Your task to perform on an android device: uninstall "Move to iOS" Image 0: 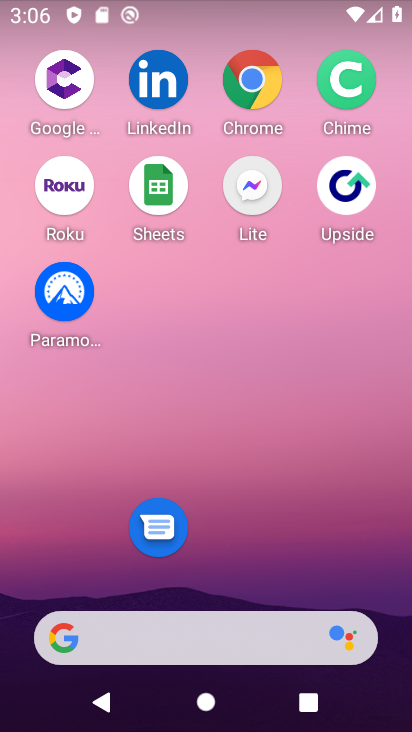
Step 0: drag from (268, 572) to (257, 10)
Your task to perform on an android device: uninstall "Move to iOS" Image 1: 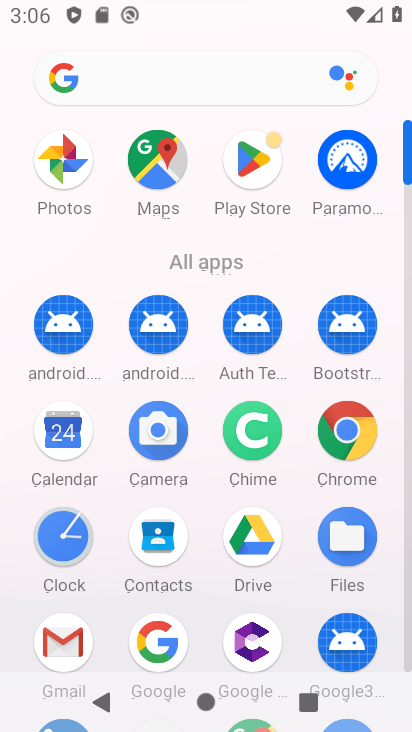
Step 1: click (268, 156)
Your task to perform on an android device: uninstall "Move to iOS" Image 2: 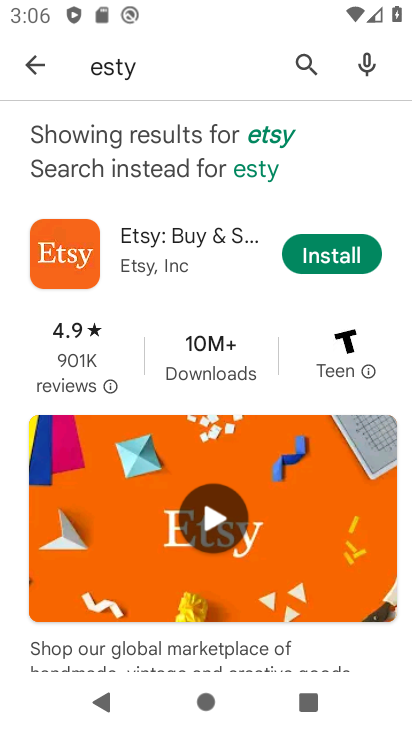
Step 2: click (316, 83)
Your task to perform on an android device: uninstall "Move to iOS" Image 3: 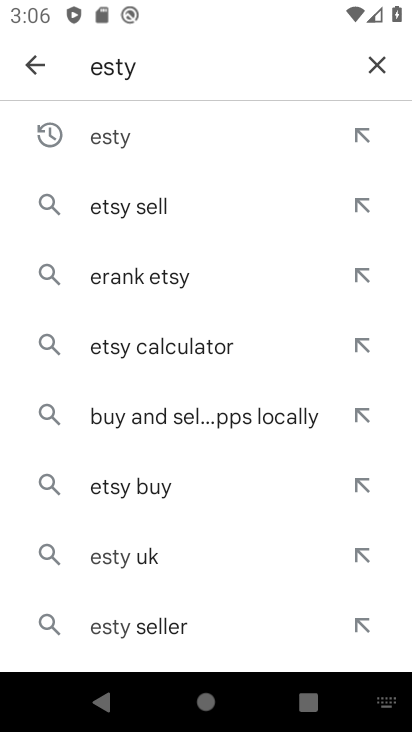
Step 3: click (380, 72)
Your task to perform on an android device: uninstall "Move to iOS" Image 4: 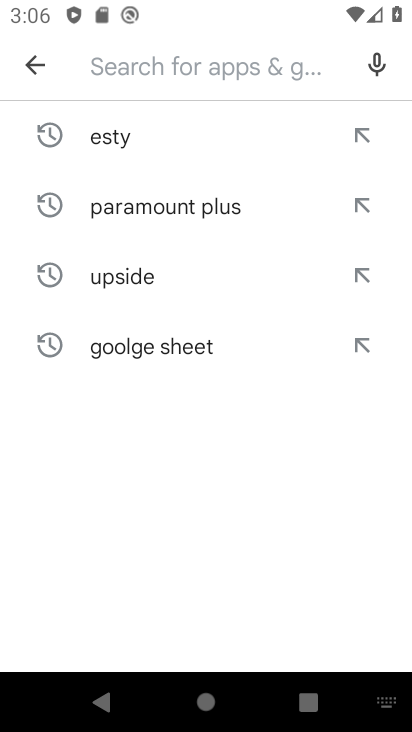
Step 4: type "move iso"
Your task to perform on an android device: uninstall "Move to iOS" Image 5: 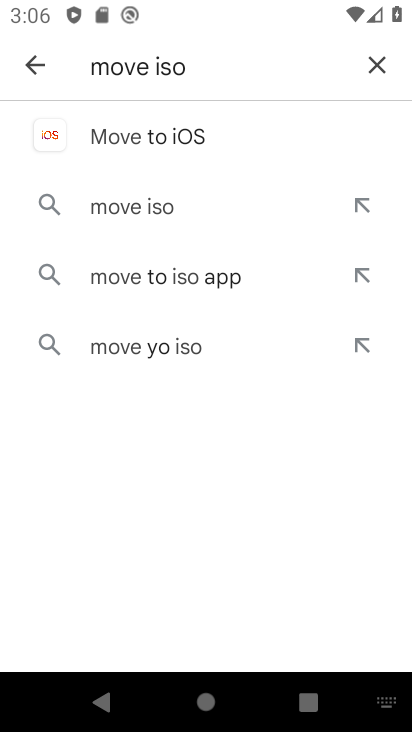
Step 5: click (110, 152)
Your task to perform on an android device: uninstall "Move to iOS" Image 6: 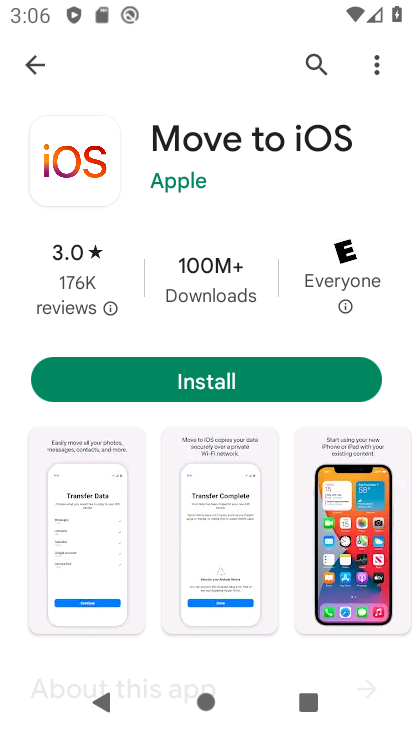
Step 6: click (190, 386)
Your task to perform on an android device: uninstall "Move to iOS" Image 7: 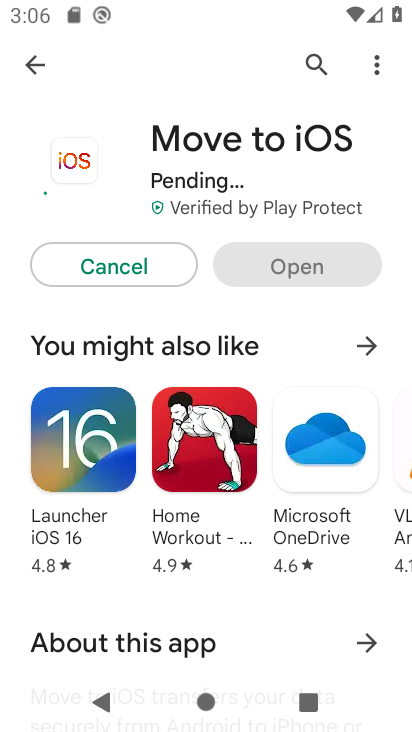
Step 7: task complete